Your task to perform on an android device: check android version Image 0: 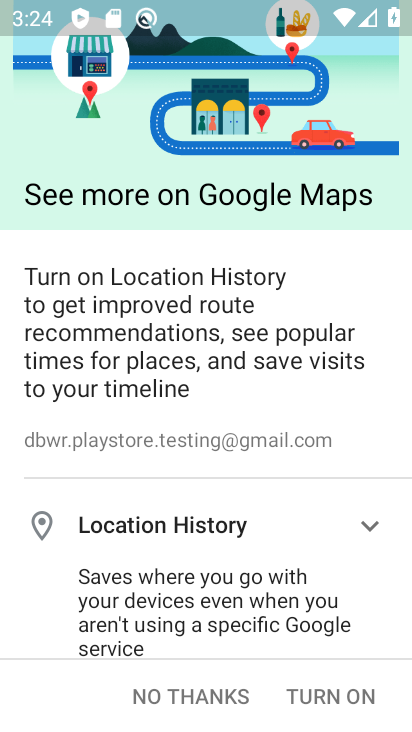
Step 0: press home button
Your task to perform on an android device: check android version Image 1: 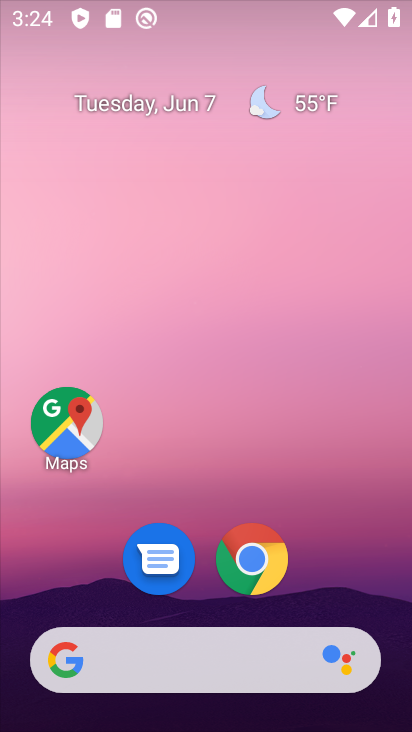
Step 1: drag from (196, 723) to (188, 96)
Your task to perform on an android device: check android version Image 2: 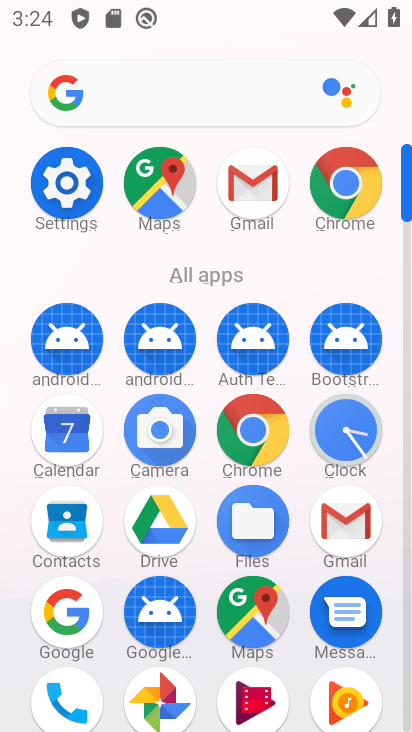
Step 2: click (58, 189)
Your task to perform on an android device: check android version Image 3: 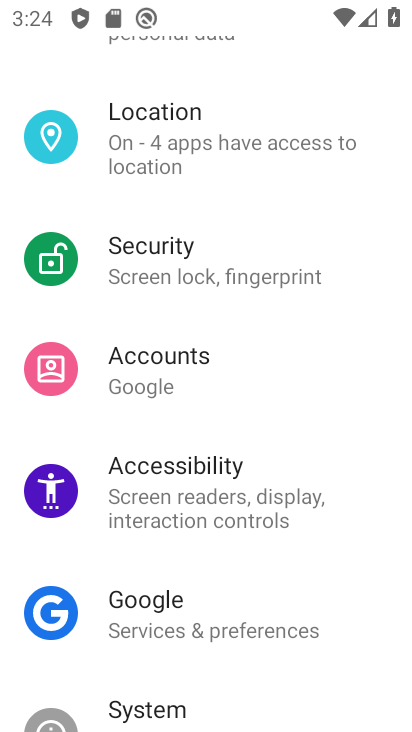
Step 3: drag from (202, 685) to (197, 339)
Your task to perform on an android device: check android version Image 4: 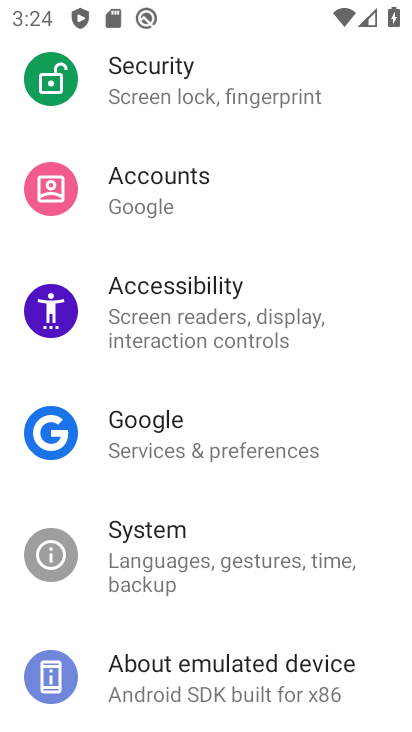
Step 4: click (189, 673)
Your task to perform on an android device: check android version Image 5: 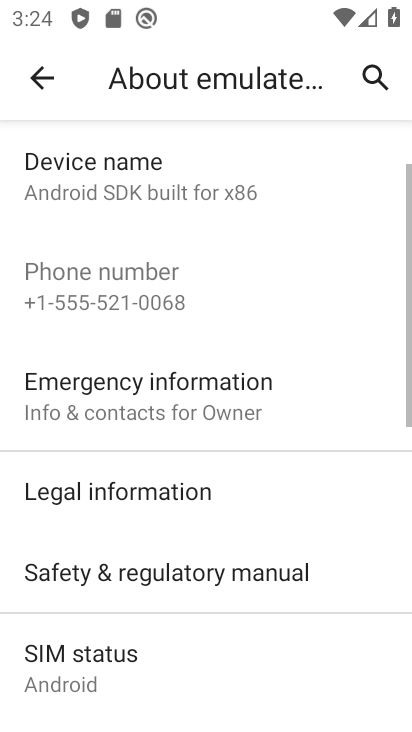
Step 5: drag from (168, 661) to (196, 308)
Your task to perform on an android device: check android version Image 6: 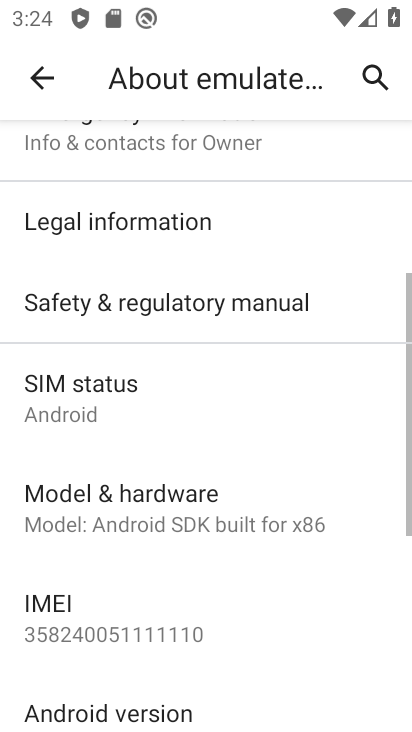
Step 6: drag from (133, 692) to (137, 320)
Your task to perform on an android device: check android version Image 7: 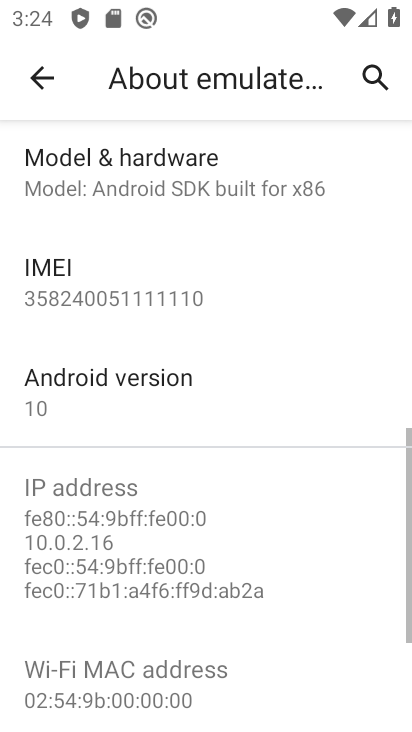
Step 7: click (110, 380)
Your task to perform on an android device: check android version Image 8: 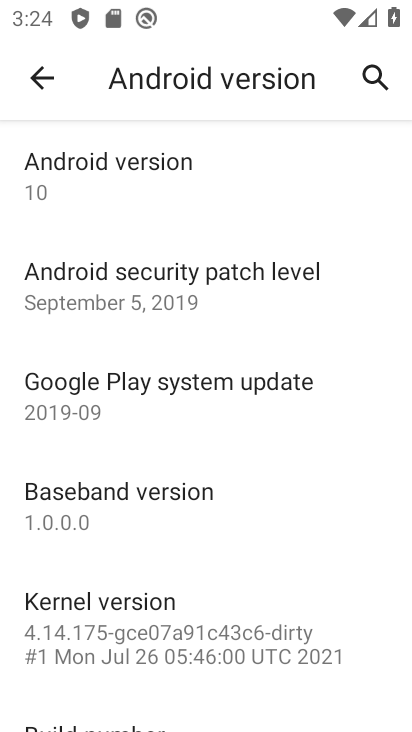
Step 8: click (103, 179)
Your task to perform on an android device: check android version Image 9: 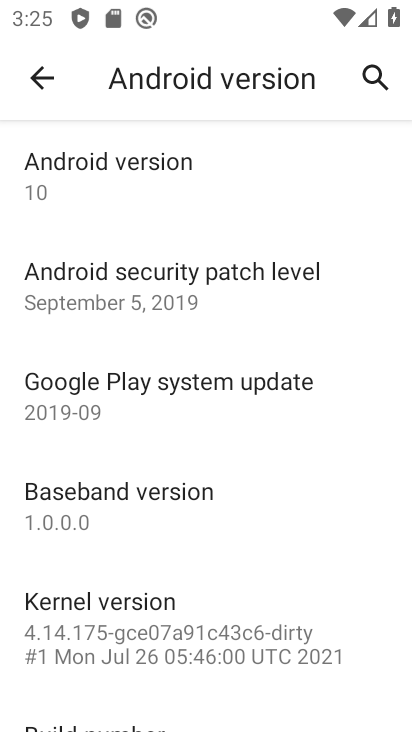
Step 9: task complete